Your task to perform on an android device: Open calendar and show me the third week of next month Image 0: 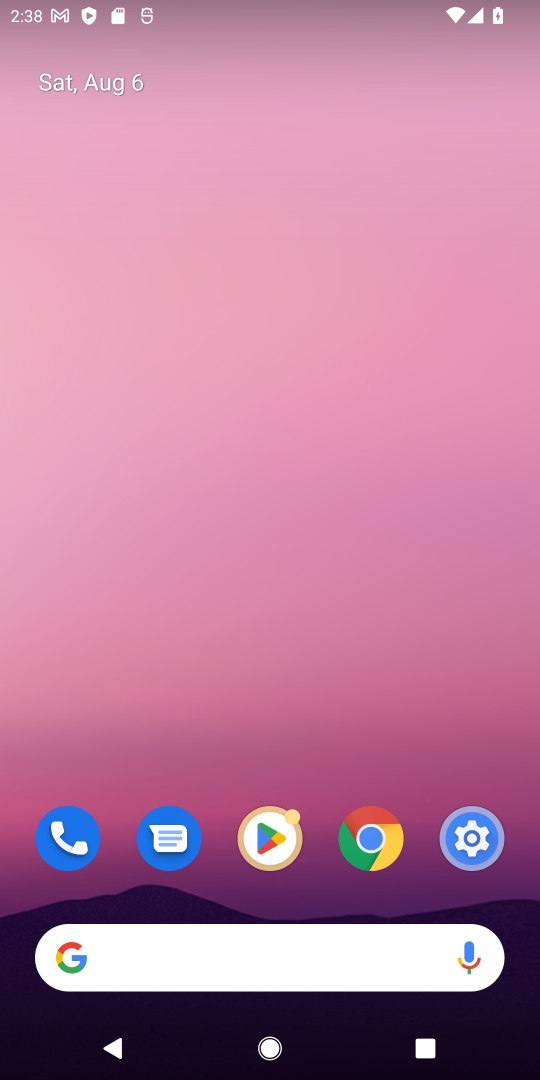
Step 0: drag from (183, 730) to (400, 44)
Your task to perform on an android device: Open calendar and show me the third week of next month Image 1: 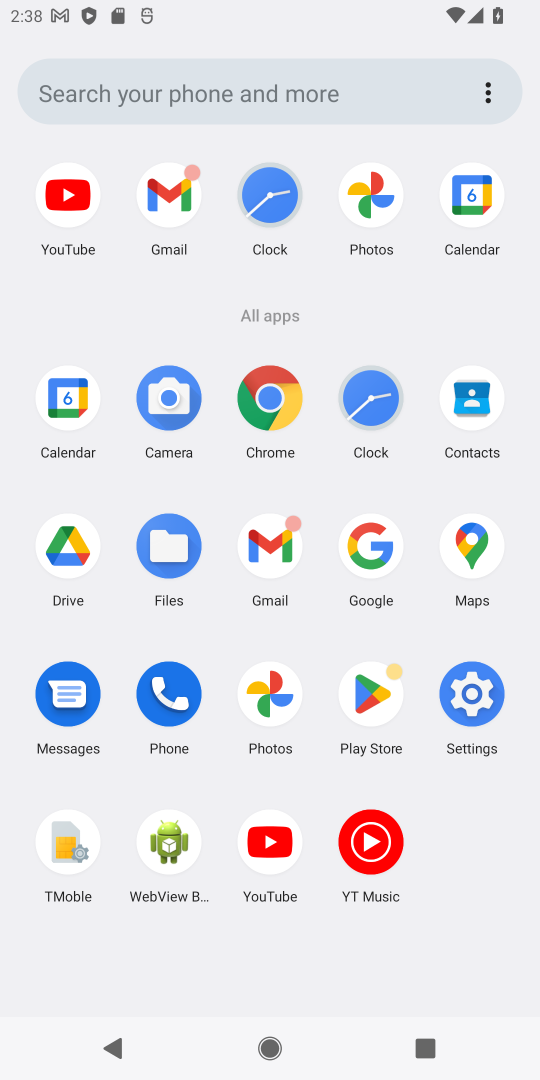
Step 1: click (491, 202)
Your task to perform on an android device: Open calendar and show me the third week of next month Image 2: 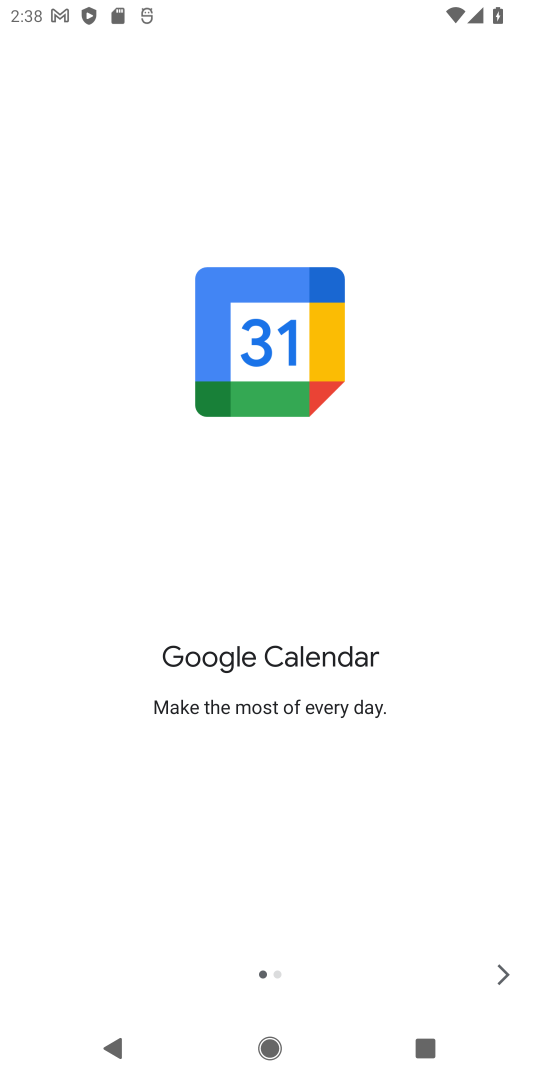
Step 2: click (509, 970)
Your task to perform on an android device: Open calendar and show me the third week of next month Image 3: 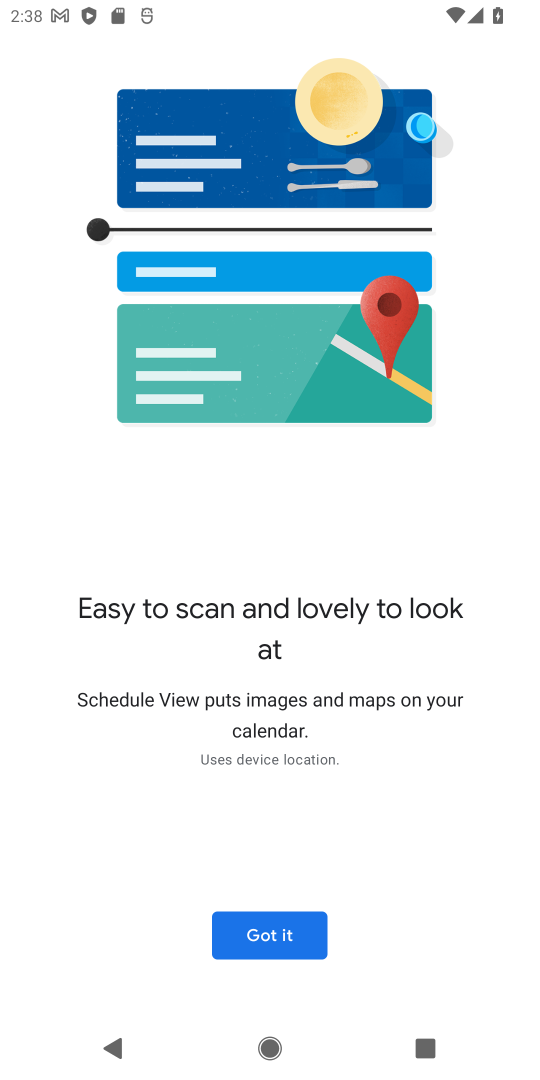
Step 3: click (255, 934)
Your task to perform on an android device: Open calendar and show me the third week of next month Image 4: 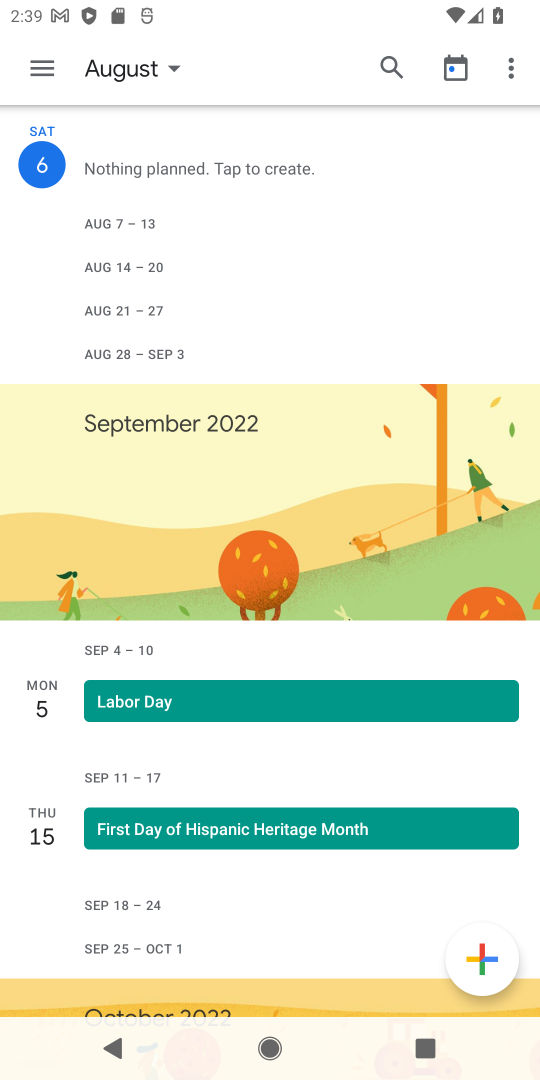
Step 4: click (131, 58)
Your task to perform on an android device: Open calendar and show me the third week of next month Image 5: 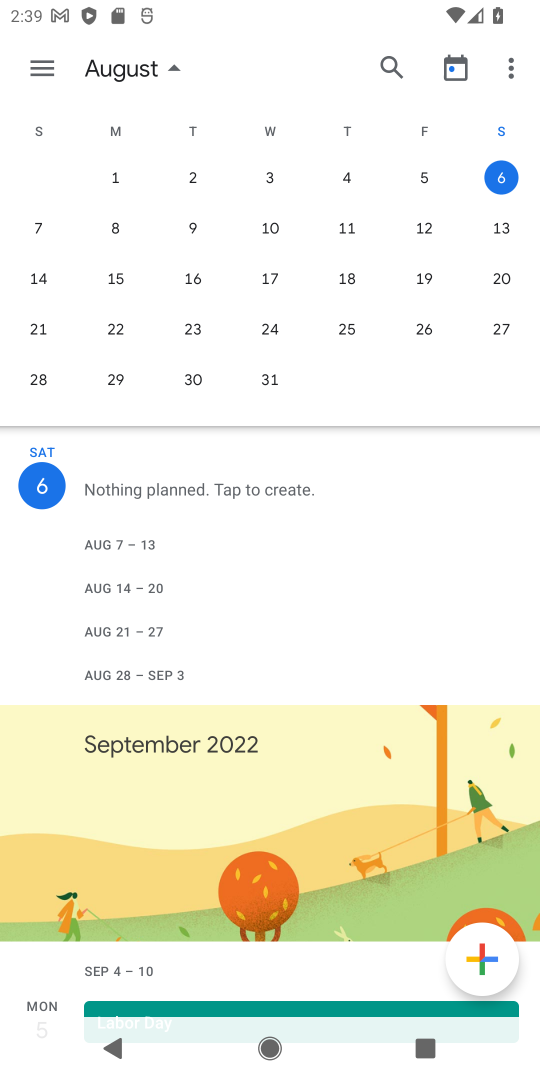
Step 5: task complete